Your task to perform on an android device: empty trash in google photos Image 0: 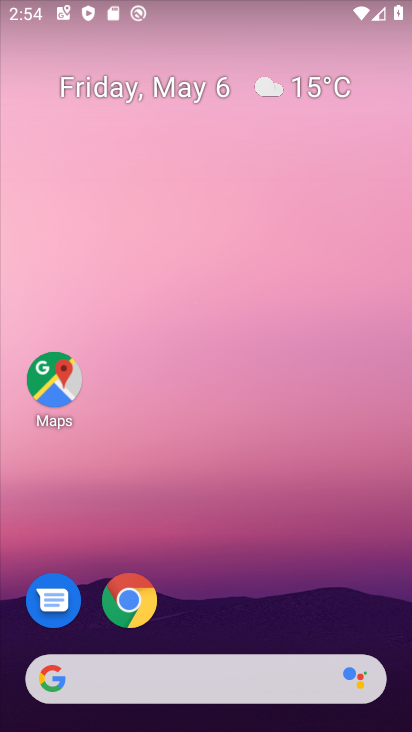
Step 0: drag from (245, 587) to (192, 12)
Your task to perform on an android device: empty trash in google photos Image 1: 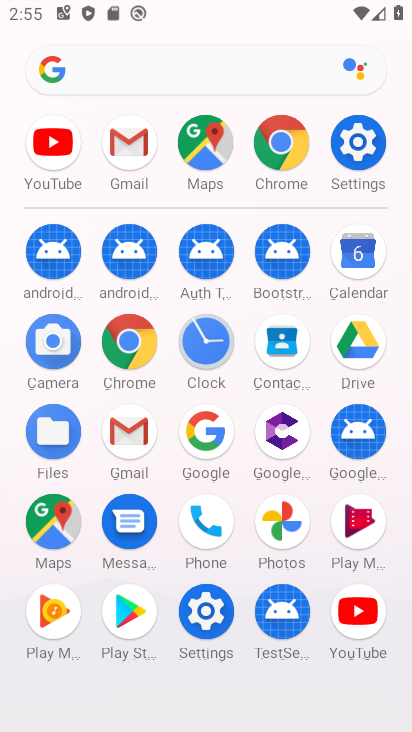
Step 1: click (280, 521)
Your task to perform on an android device: empty trash in google photos Image 2: 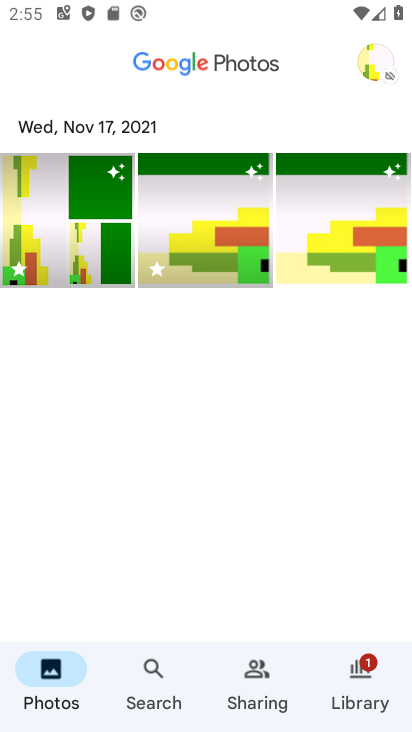
Step 2: click (372, 680)
Your task to perform on an android device: empty trash in google photos Image 3: 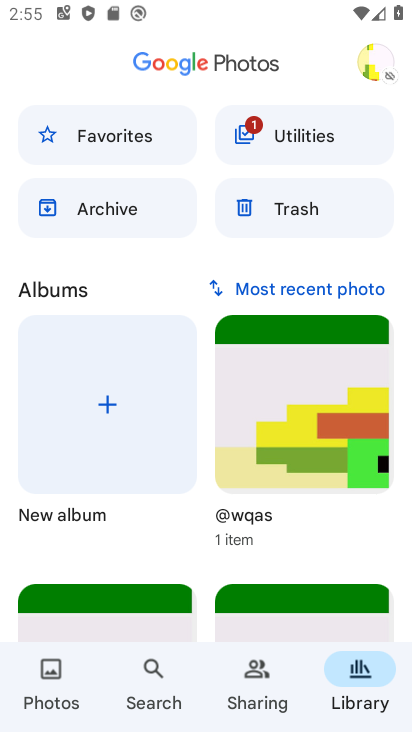
Step 3: click (288, 195)
Your task to perform on an android device: empty trash in google photos Image 4: 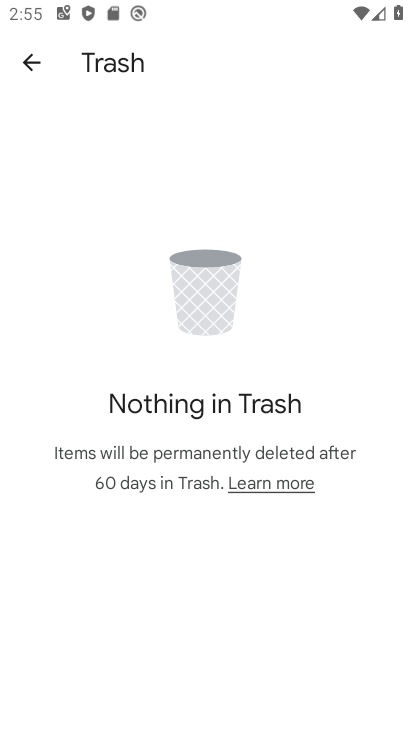
Step 4: click (33, 63)
Your task to perform on an android device: empty trash in google photos Image 5: 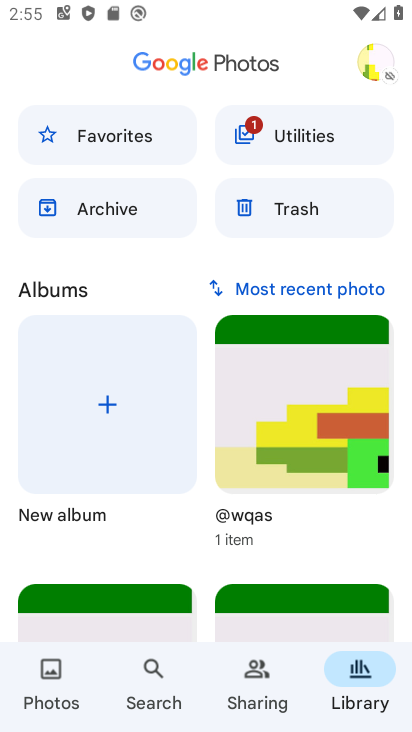
Step 5: click (240, 195)
Your task to perform on an android device: empty trash in google photos Image 6: 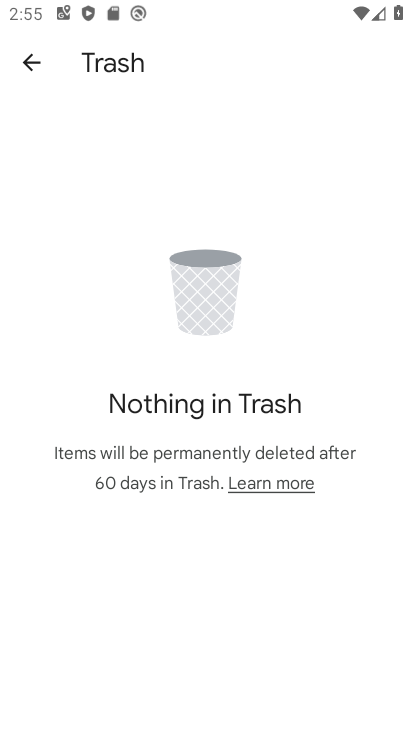
Step 6: task complete